Your task to perform on an android device: Do I have any events this weekend? Image 0: 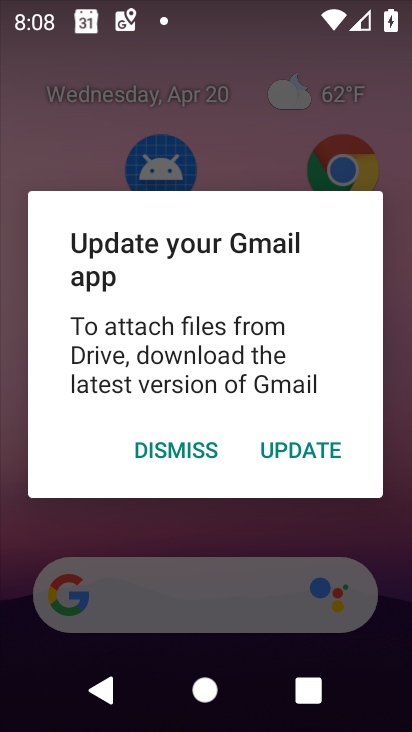
Step 0: press home button
Your task to perform on an android device: Do I have any events this weekend? Image 1: 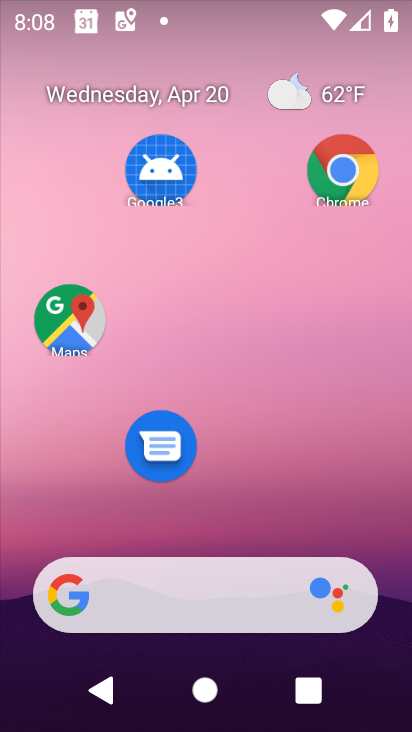
Step 1: drag from (259, 516) to (226, 16)
Your task to perform on an android device: Do I have any events this weekend? Image 2: 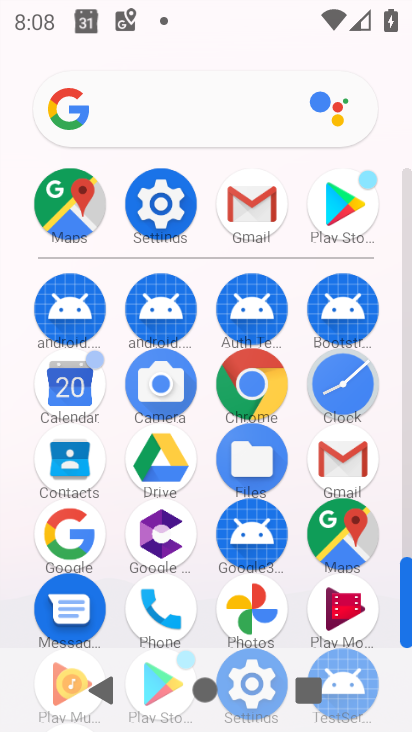
Step 2: click (65, 388)
Your task to perform on an android device: Do I have any events this weekend? Image 3: 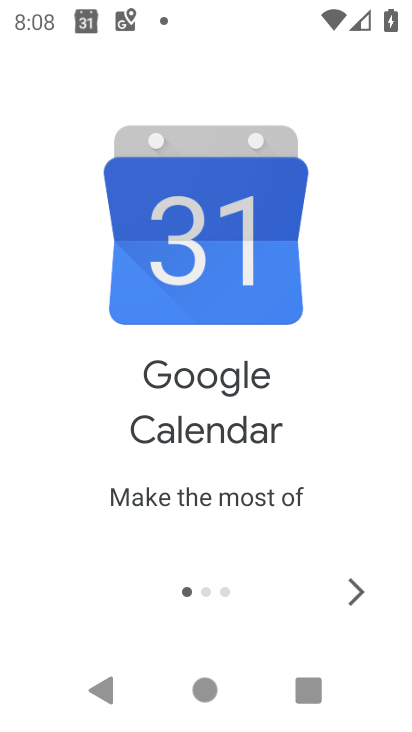
Step 3: click (359, 591)
Your task to perform on an android device: Do I have any events this weekend? Image 4: 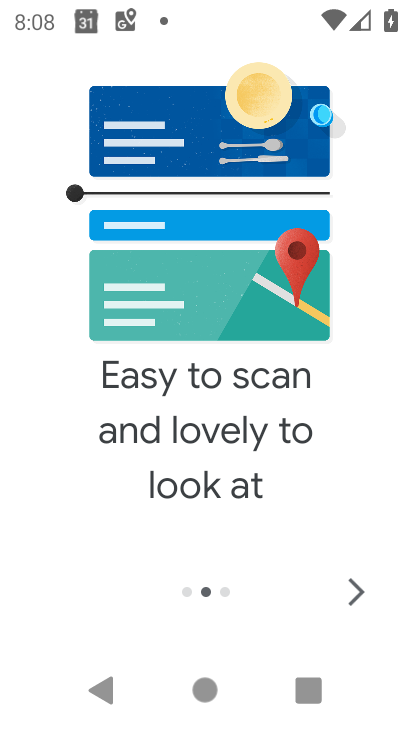
Step 4: click (359, 591)
Your task to perform on an android device: Do I have any events this weekend? Image 5: 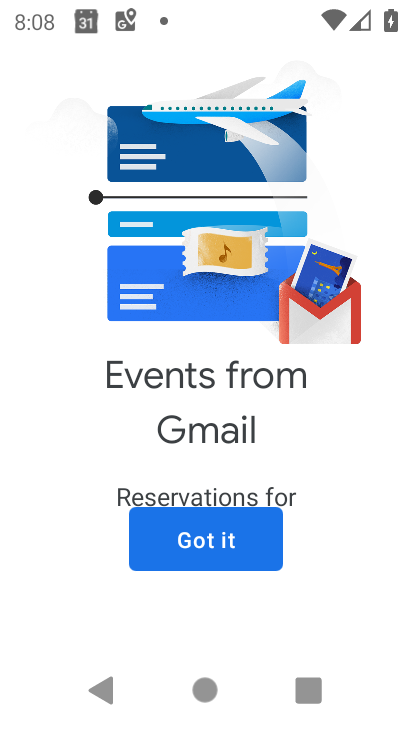
Step 5: click (218, 542)
Your task to perform on an android device: Do I have any events this weekend? Image 6: 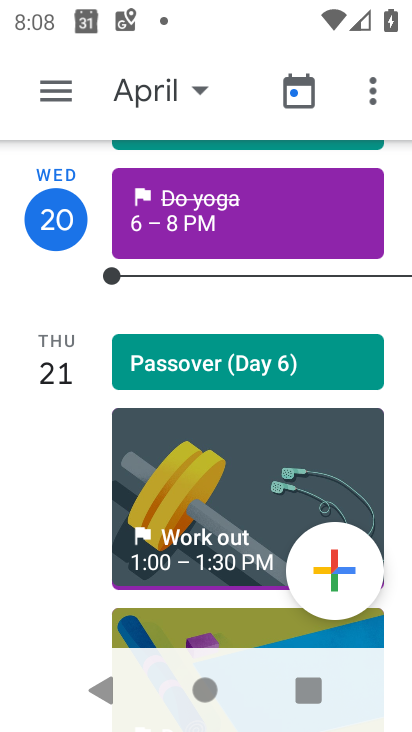
Step 6: click (53, 87)
Your task to perform on an android device: Do I have any events this weekend? Image 7: 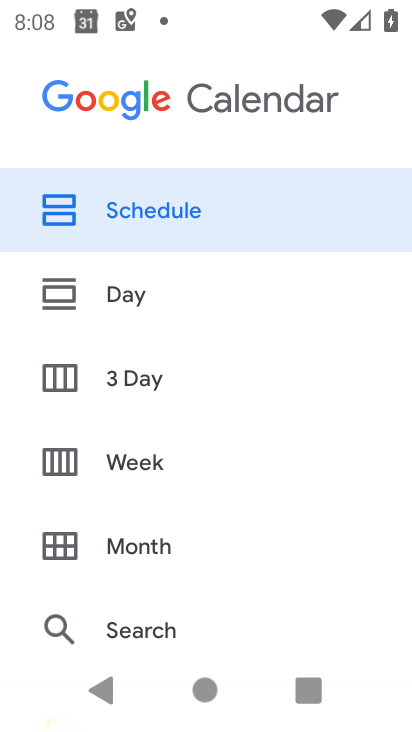
Step 7: click (131, 289)
Your task to perform on an android device: Do I have any events this weekend? Image 8: 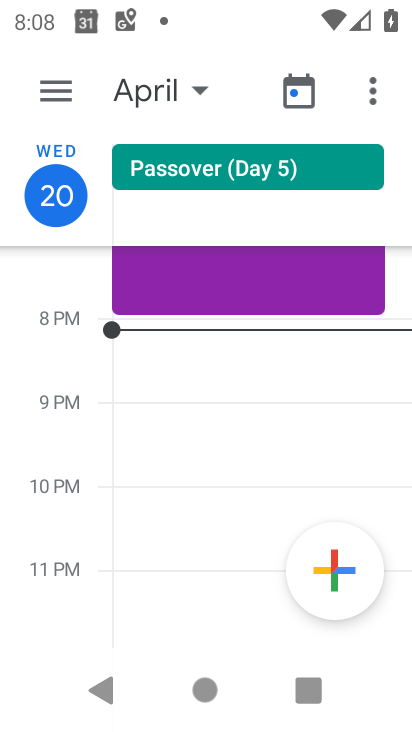
Step 8: click (204, 89)
Your task to perform on an android device: Do I have any events this weekend? Image 9: 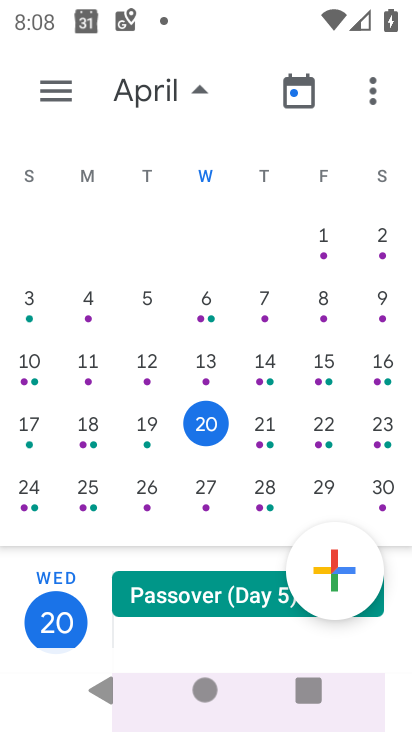
Step 9: click (389, 425)
Your task to perform on an android device: Do I have any events this weekend? Image 10: 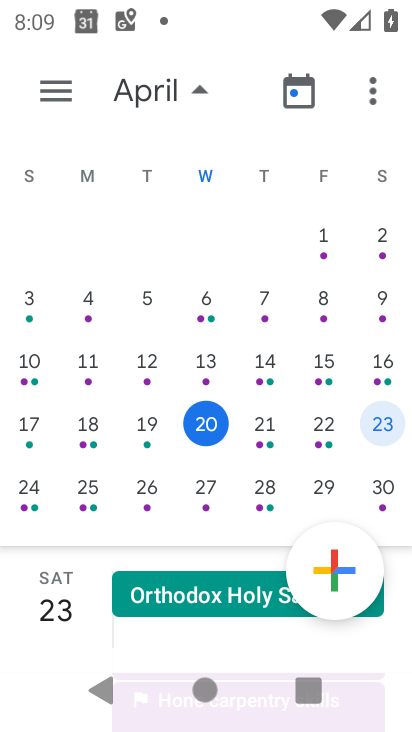
Step 10: click (383, 425)
Your task to perform on an android device: Do I have any events this weekend? Image 11: 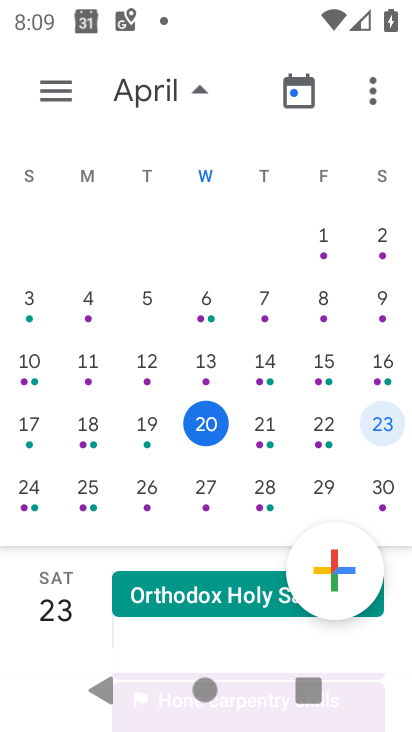
Step 11: task complete